Your task to perform on an android device: open a new tab in the chrome app Image 0: 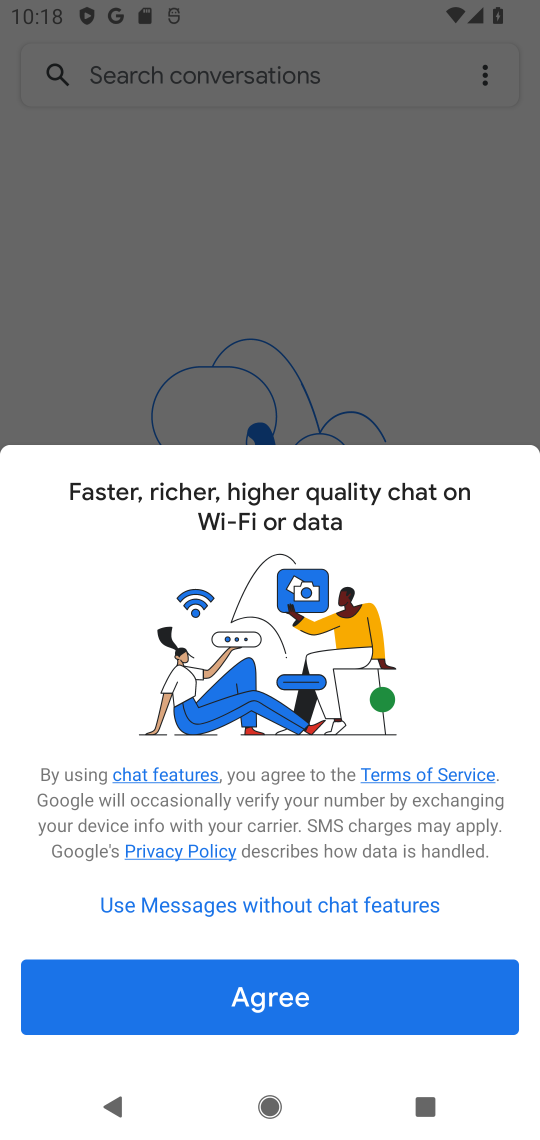
Step 0: press home button
Your task to perform on an android device: open a new tab in the chrome app Image 1: 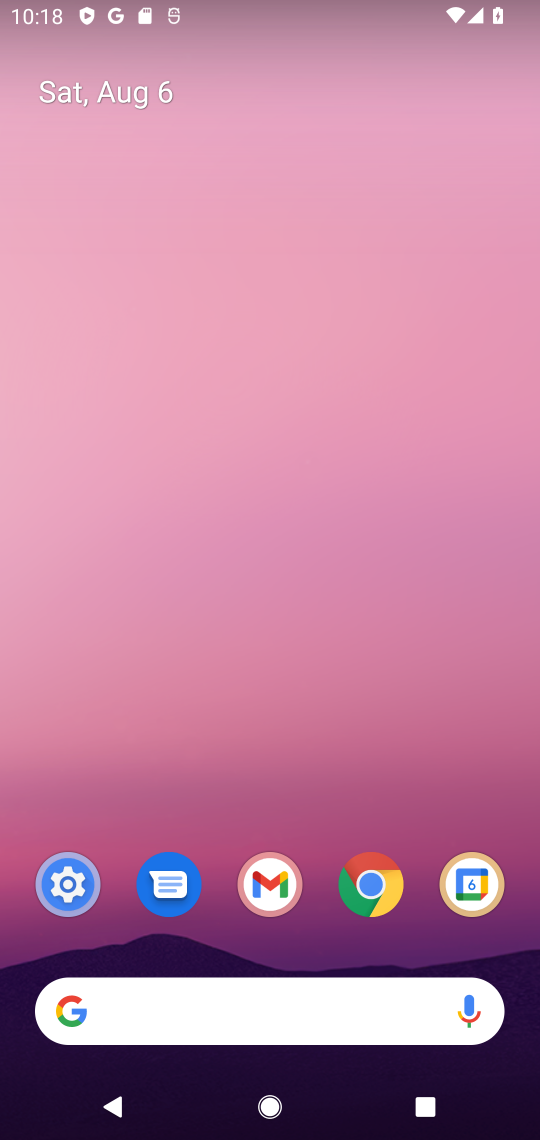
Step 1: click (372, 881)
Your task to perform on an android device: open a new tab in the chrome app Image 2: 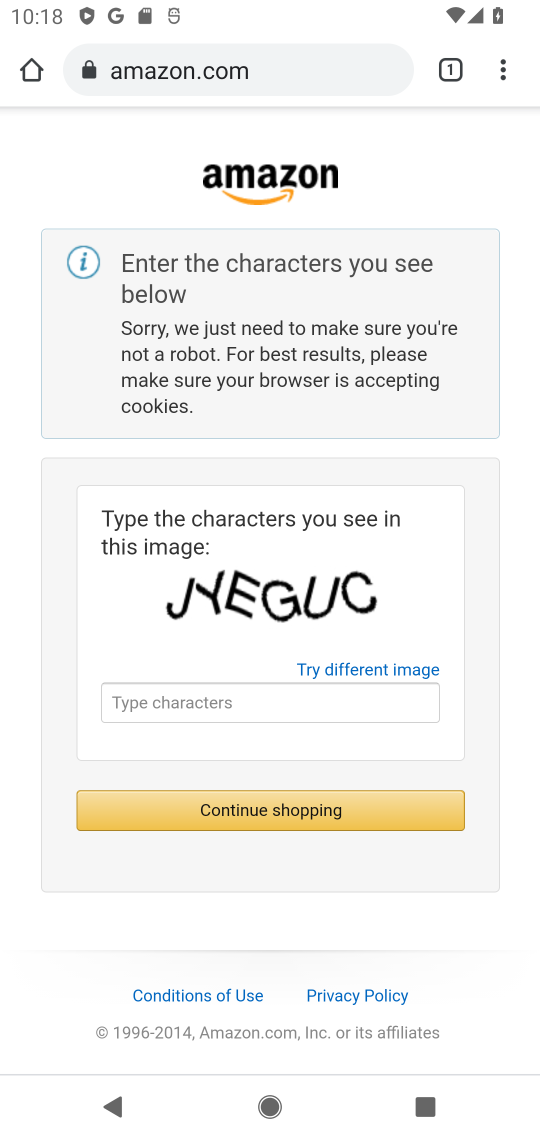
Step 2: click (501, 82)
Your task to perform on an android device: open a new tab in the chrome app Image 3: 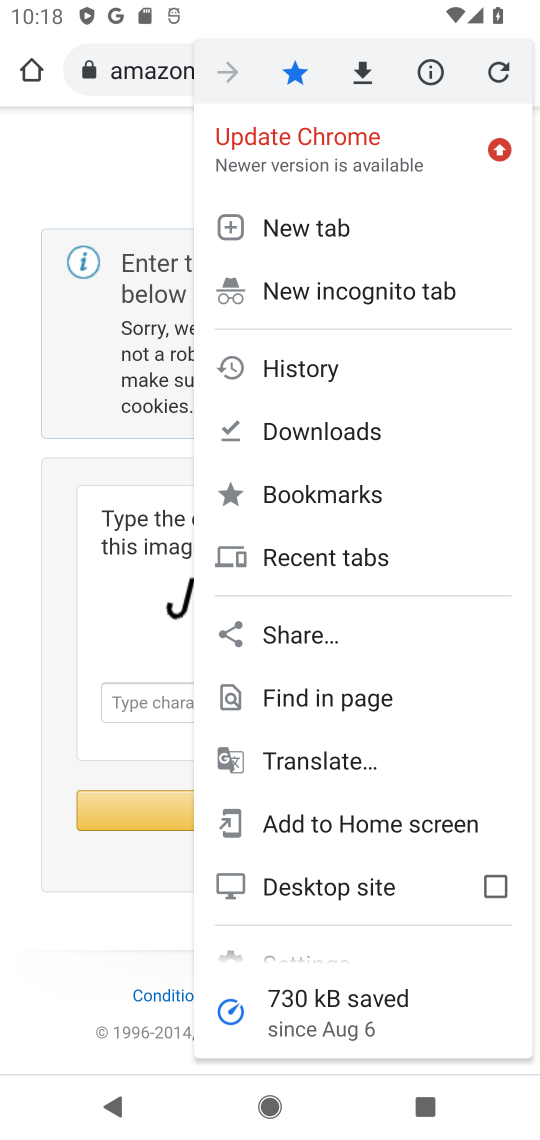
Step 3: click (310, 233)
Your task to perform on an android device: open a new tab in the chrome app Image 4: 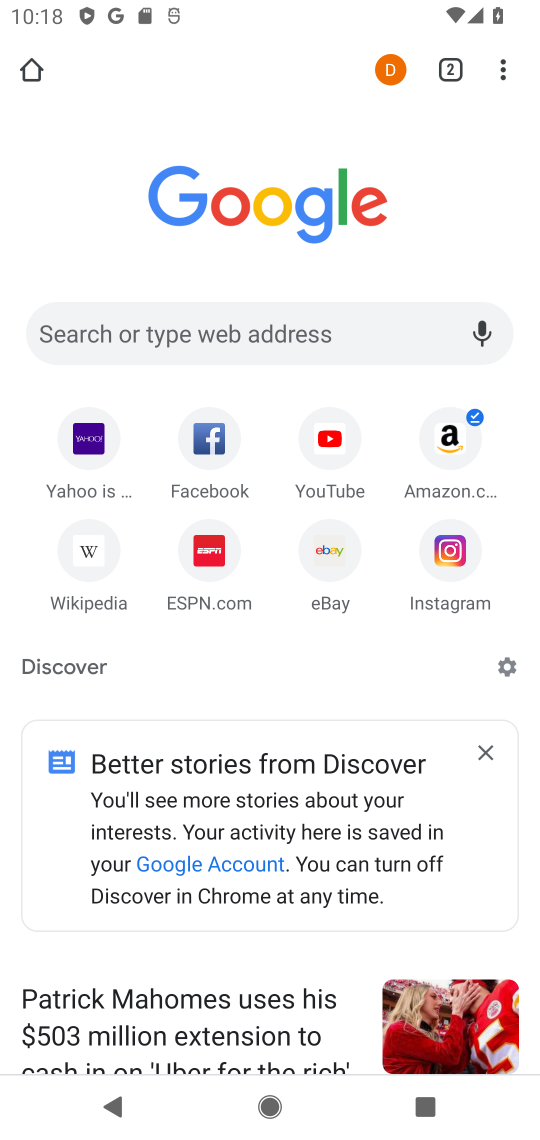
Step 4: task complete